Your task to perform on an android device: check android version Image 0: 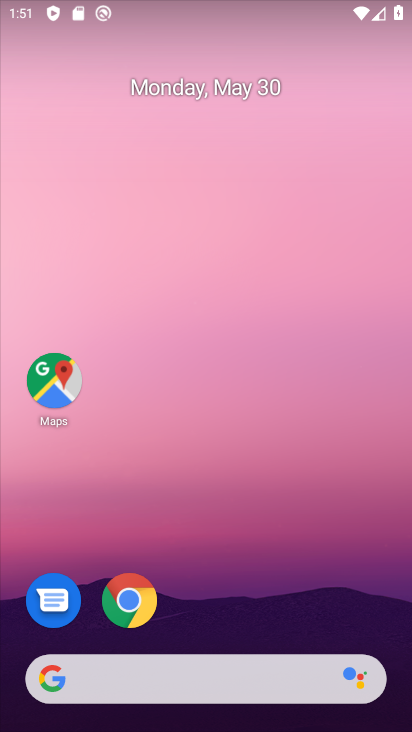
Step 0: drag from (243, 588) to (184, 71)
Your task to perform on an android device: check android version Image 1: 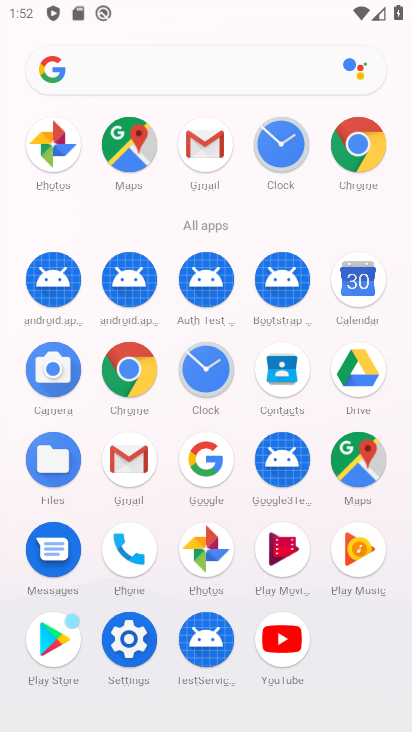
Step 1: click (137, 623)
Your task to perform on an android device: check android version Image 2: 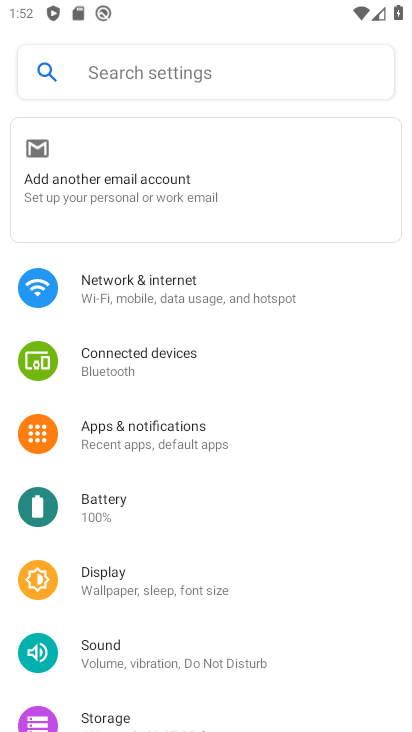
Step 2: drag from (208, 586) to (220, 262)
Your task to perform on an android device: check android version Image 3: 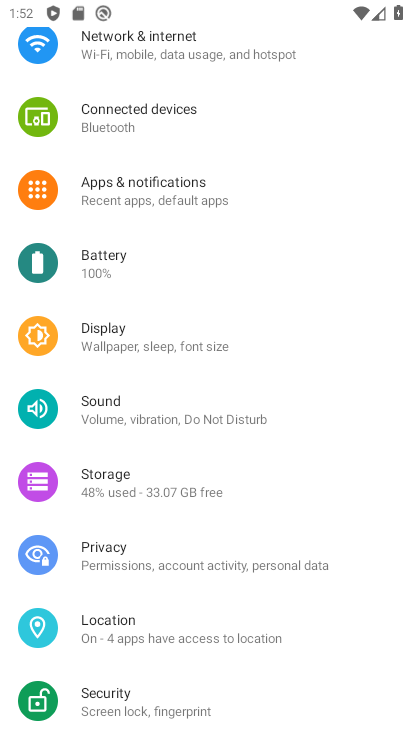
Step 3: drag from (237, 643) to (239, 195)
Your task to perform on an android device: check android version Image 4: 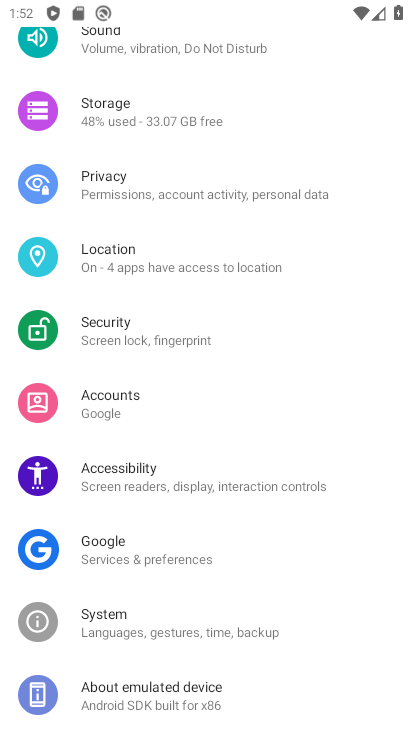
Step 4: click (169, 691)
Your task to perform on an android device: check android version Image 5: 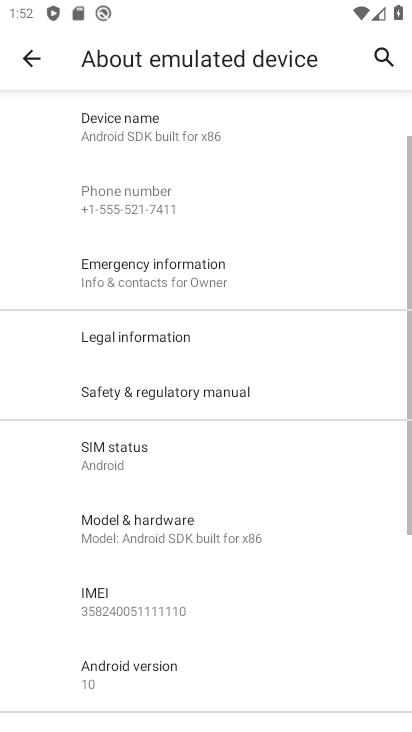
Step 5: click (133, 674)
Your task to perform on an android device: check android version Image 6: 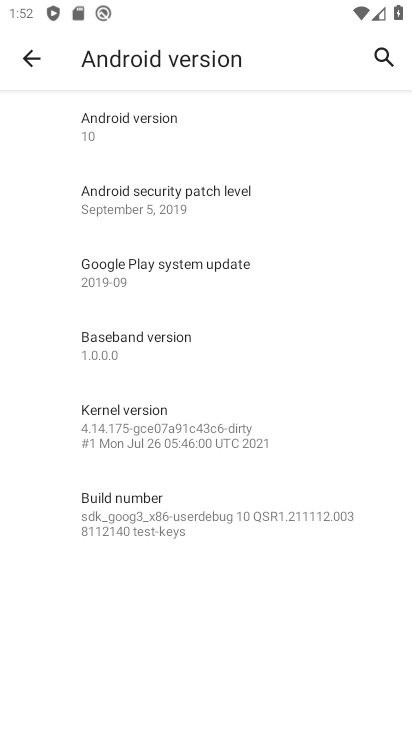
Step 6: task complete